Your task to perform on an android device: Open Google Image 0: 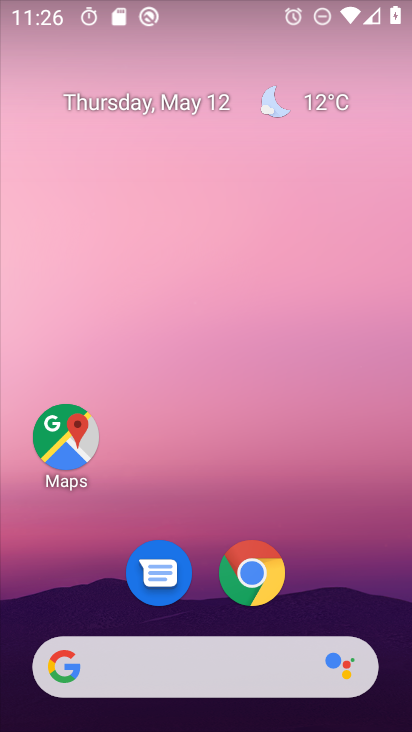
Step 0: drag from (392, 650) to (385, 324)
Your task to perform on an android device: Open Google Image 1: 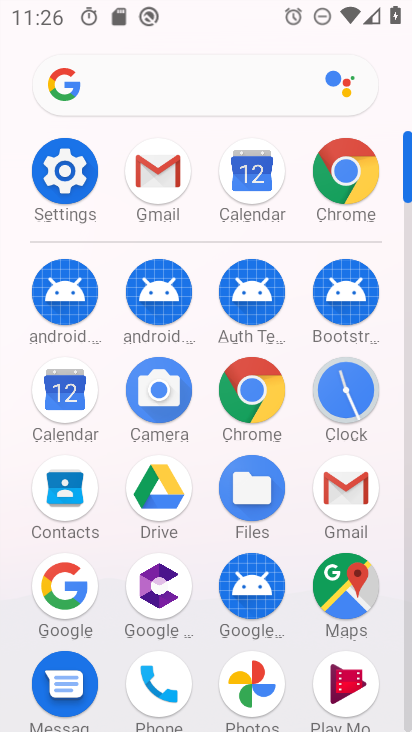
Step 1: click (64, 582)
Your task to perform on an android device: Open Google Image 2: 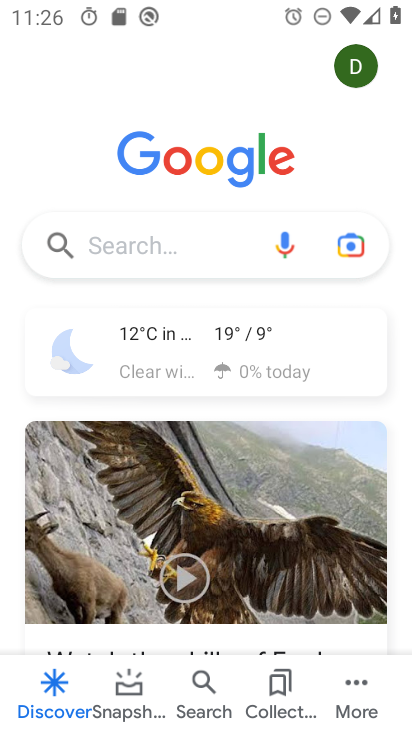
Step 2: task complete